Your task to perform on an android device: all mails in gmail Image 0: 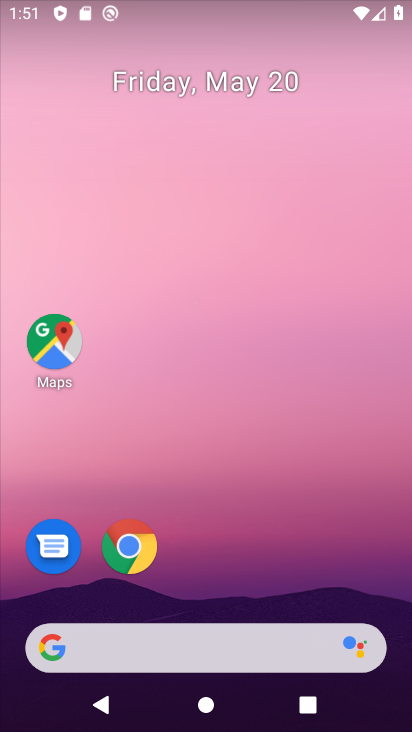
Step 0: drag from (237, 564) to (242, 58)
Your task to perform on an android device: all mails in gmail Image 1: 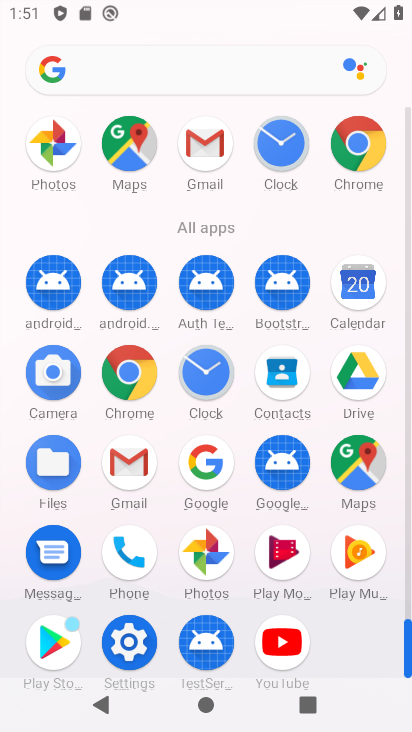
Step 1: drag from (7, 540) to (15, 245)
Your task to perform on an android device: all mails in gmail Image 2: 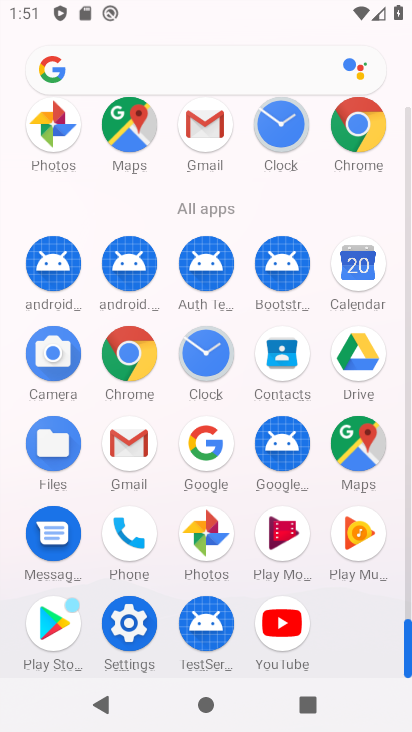
Step 2: click (124, 434)
Your task to perform on an android device: all mails in gmail Image 3: 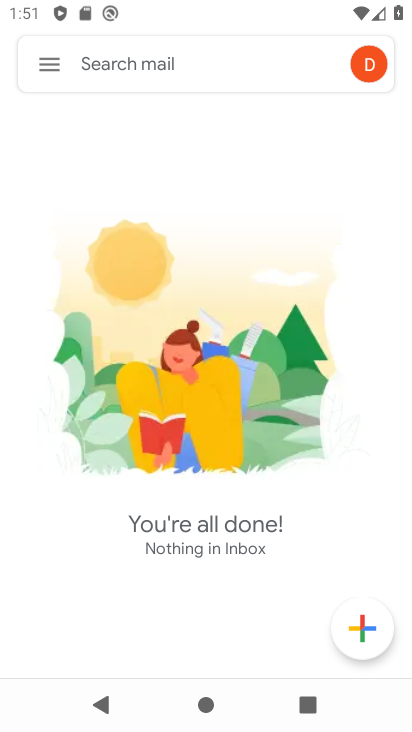
Step 3: click (55, 67)
Your task to perform on an android device: all mails in gmail Image 4: 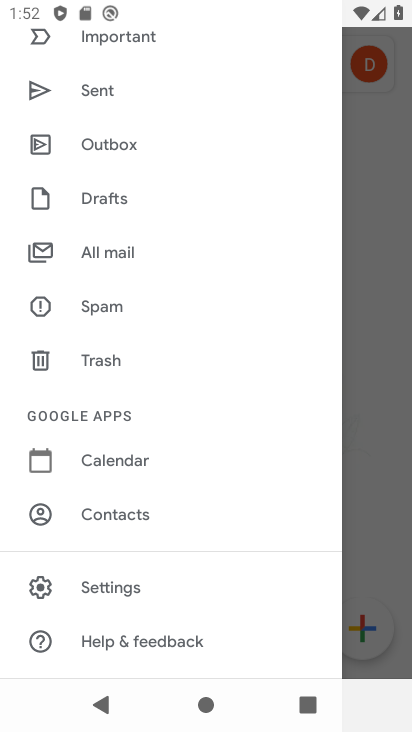
Step 4: click (125, 253)
Your task to perform on an android device: all mails in gmail Image 5: 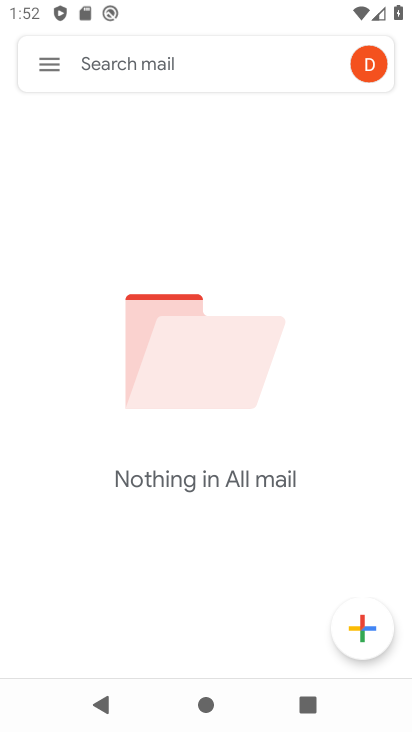
Step 5: task complete